Your task to perform on an android device: Show me productivity apps on the Play Store Image 0: 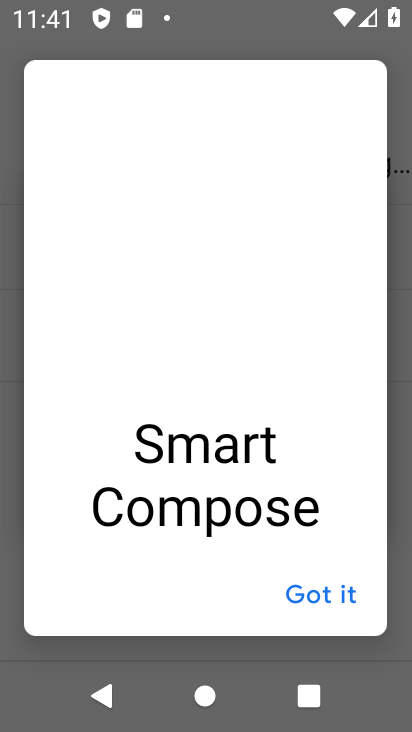
Step 0: press home button
Your task to perform on an android device: Show me productivity apps on the Play Store Image 1: 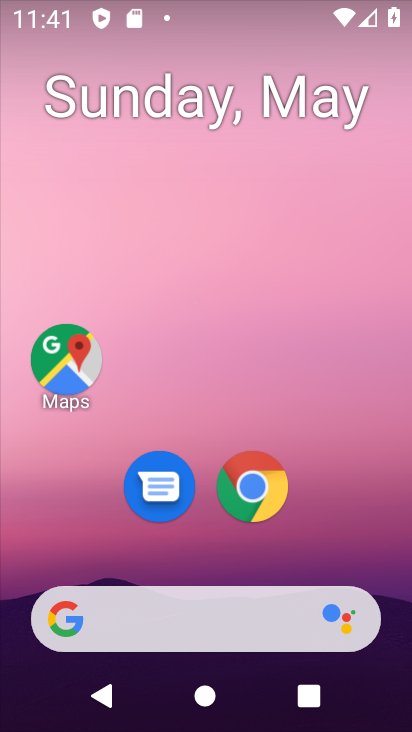
Step 1: drag from (351, 545) to (341, 258)
Your task to perform on an android device: Show me productivity apps on the Play Store Image 2: 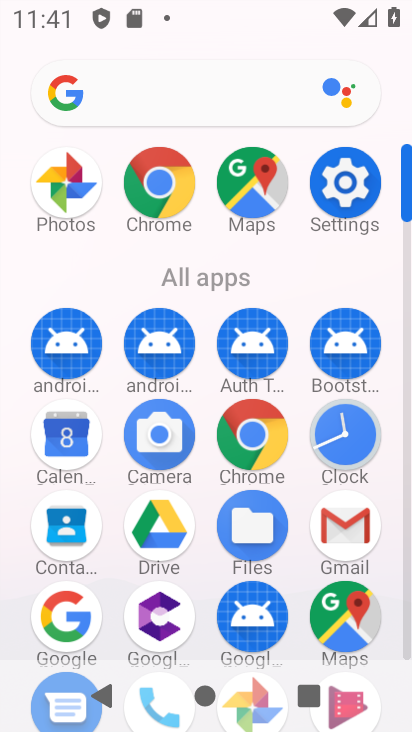
Step 2: click (408, 656)
Your task to perform on an android device: Show me productivity apps on the Play Store Image 3: 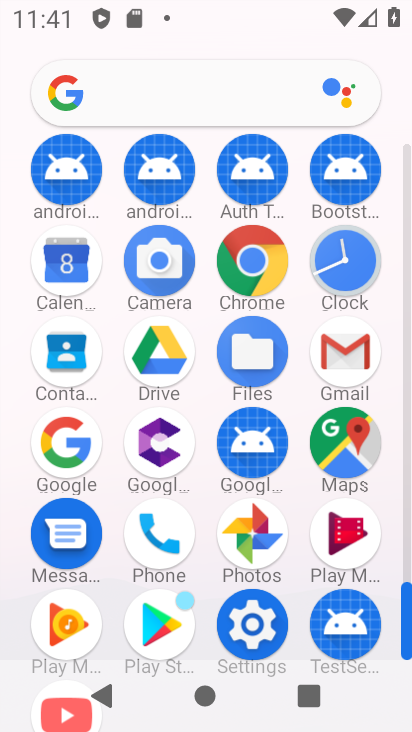
Step 3: click (164, 637)
Your task to perform on an android device: Show me productivity apps on the Play Store Image 4: 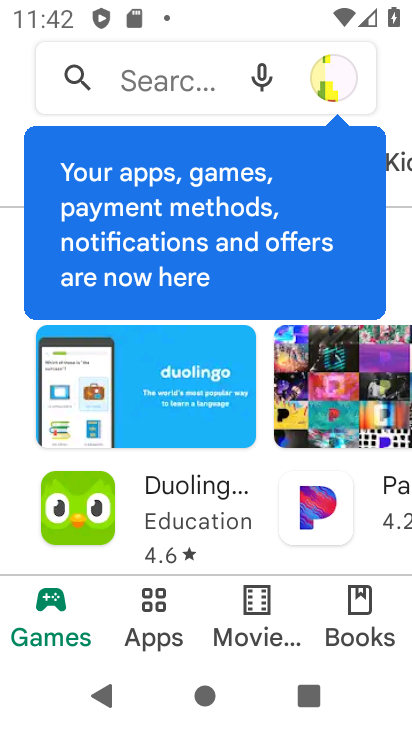
Step 4: click (164, 637)
Your task to perform on an android device: Show me productivity apps on the Play Store Image 5: 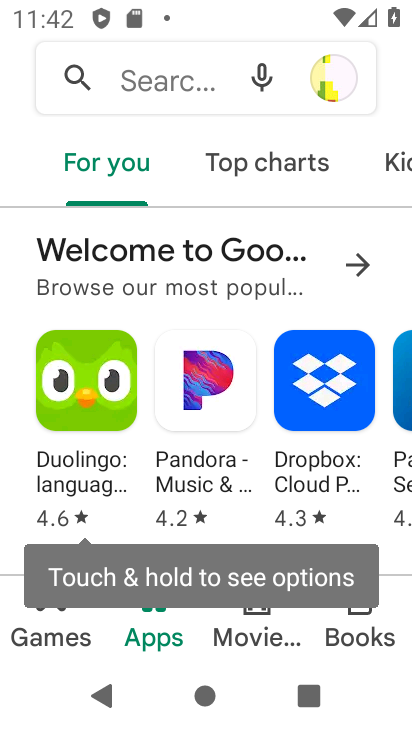
Step 5: drag from (377, 171) to (85, 173)
Your task to perform on an android device: Show me productivity apps on the Play Store Image 6: 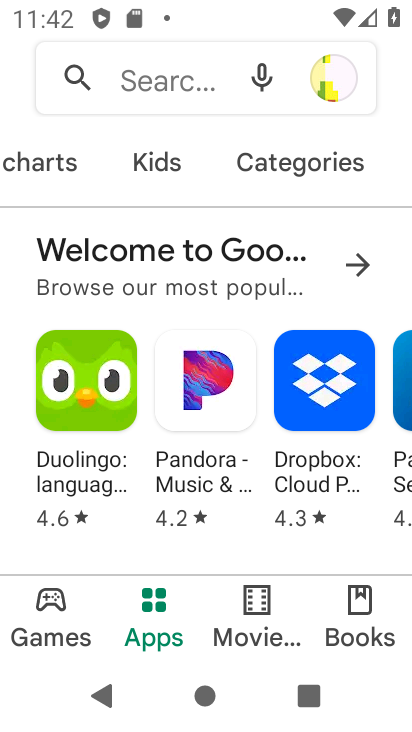
Step 6: click (262, 170)
Your task to perform on an android device: Show me productivity apps on the Play Store Image 7: 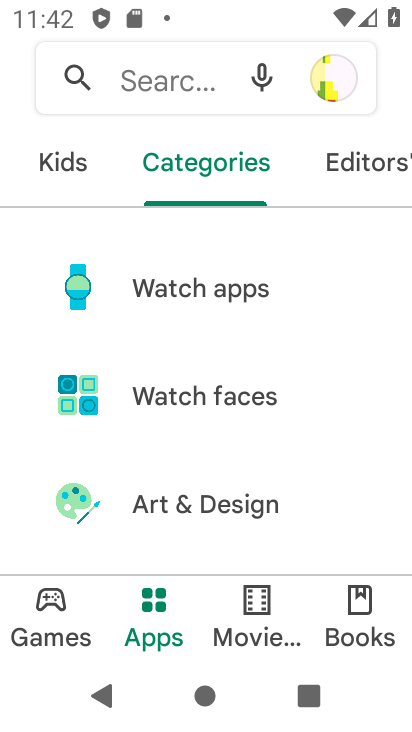
Step 7: drag from (247, 552) to (158, 39)
Your task to perform on an android device: Show me productivity apps on the Play Store Image 8: 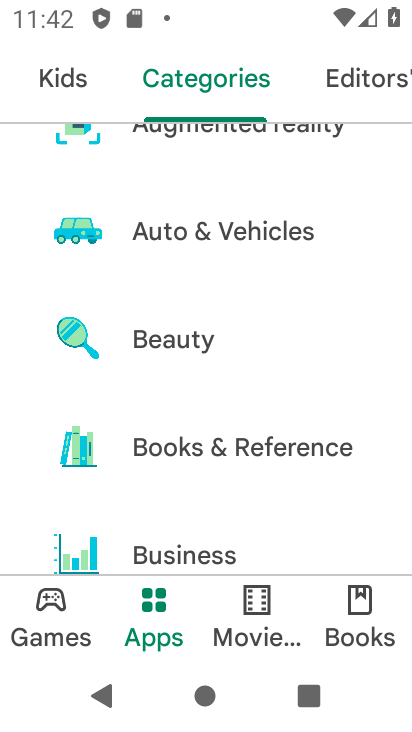
Step 8: drag from (290, 529) to (242, 218)
Your task to perform on an android device: Show me productivity apps on the Play Store Image 9: 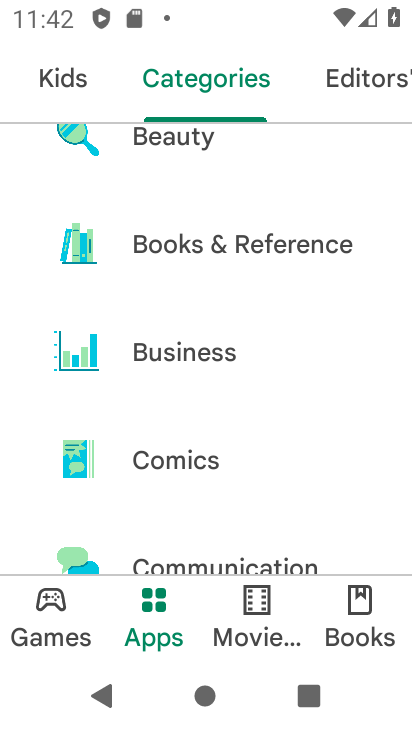
Step 9: drag from (277, 518) to (277, 116)
Your task to perform on an android device: Show me productivity apps on the Play Store Image 10: 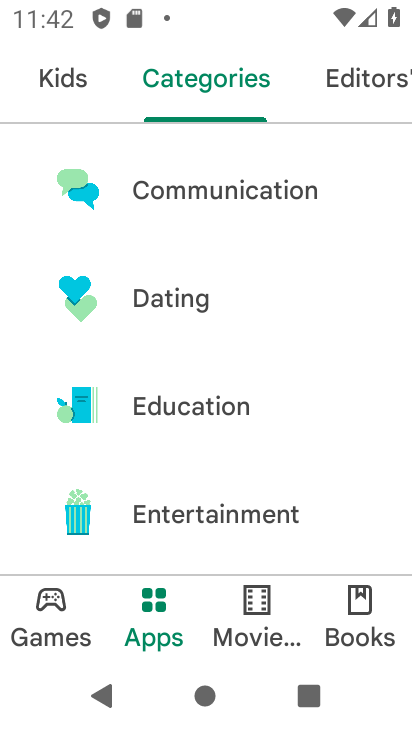
Step 10: drag from (324, 510) to (286, 176)
Your task to perform on an android device: Show me productivity apps on the Play Store Image 11: 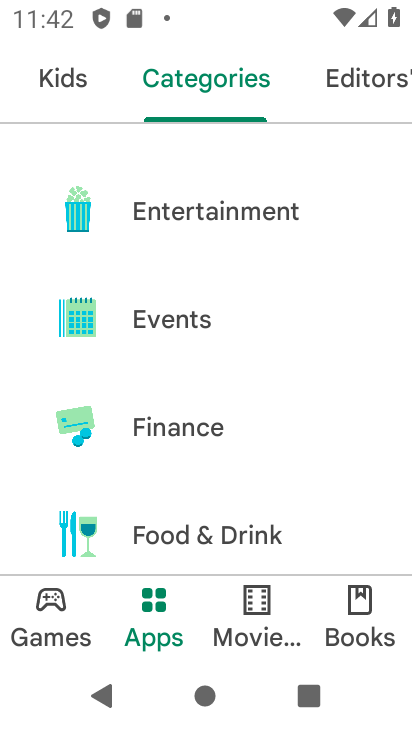
Step 11: drag from (289, 526) to (228, 159)
Your task to perform on an android device: Show me productivity apps on the Play Store Image 12: 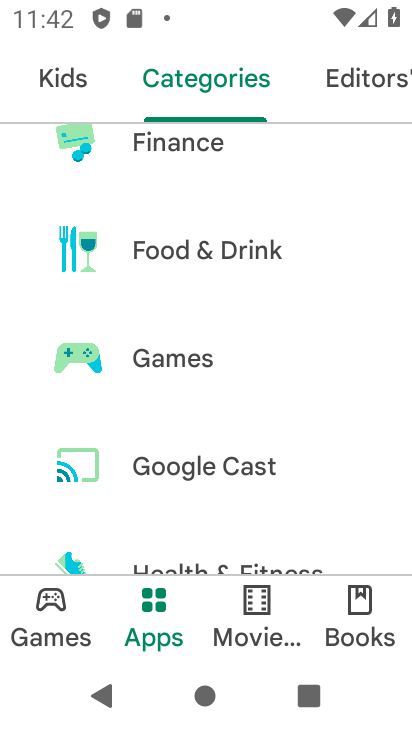
Step 12: drag from (280, 532) to (199, 124)
Your task to perform on an android device: Show me productivity apps on the Play Store Image 13: 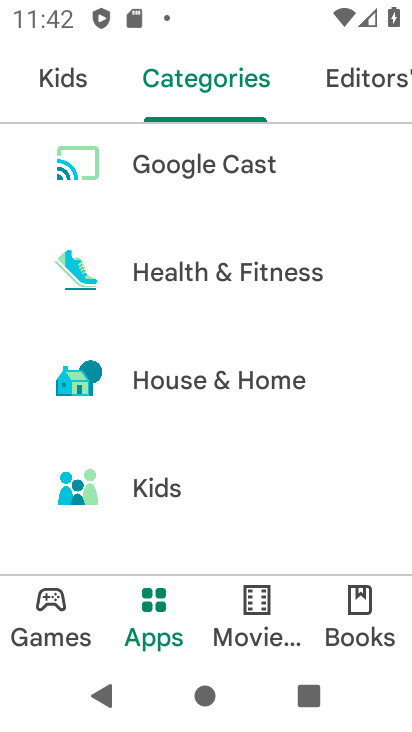
Step 13: drag from (262, 526) to (206, 157)
Your task to perform on an android device: Show me productivity apps on the Play Store Image 14: 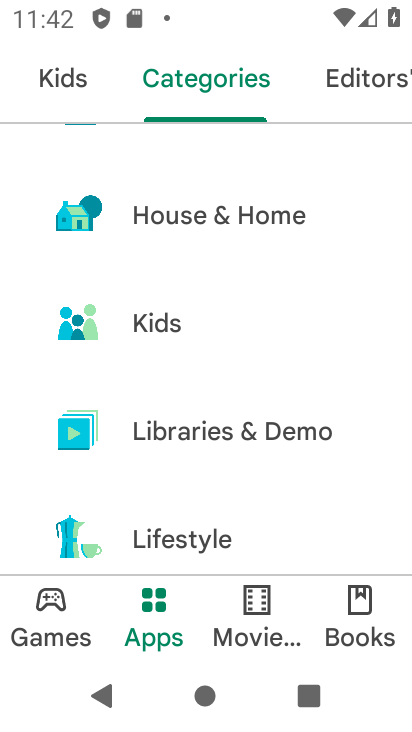
Step 14: drag from (297, 509) to (210, 23)
Your task to perform on an android device: Show me productivity apps on the Play Store Image 15: 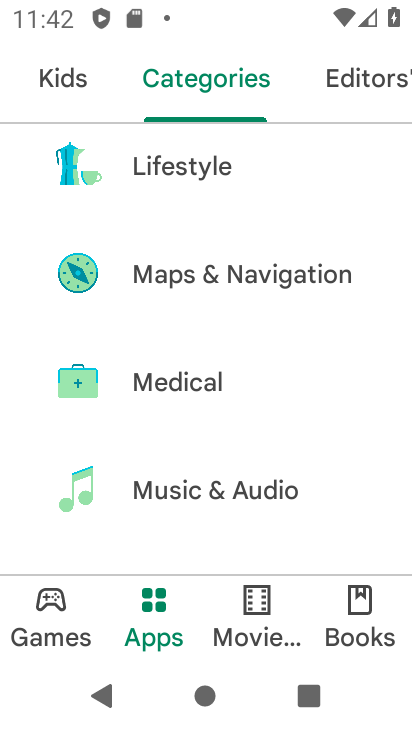
Step 15: drag from (253, 438) to (229, 69)
Your task to perform on an android device: Show me productivity apps on the Play Store Image 16: 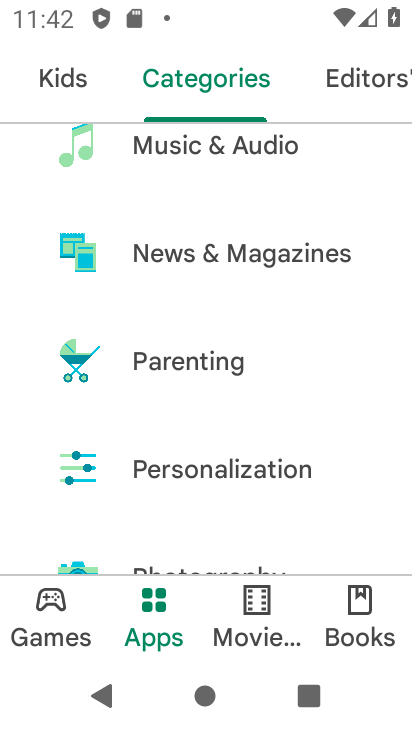
Step 16: drag from (236, 518) to (217, 301)
Your task to perform on an android device: Show me productivity apps on the Play Store Image 17: 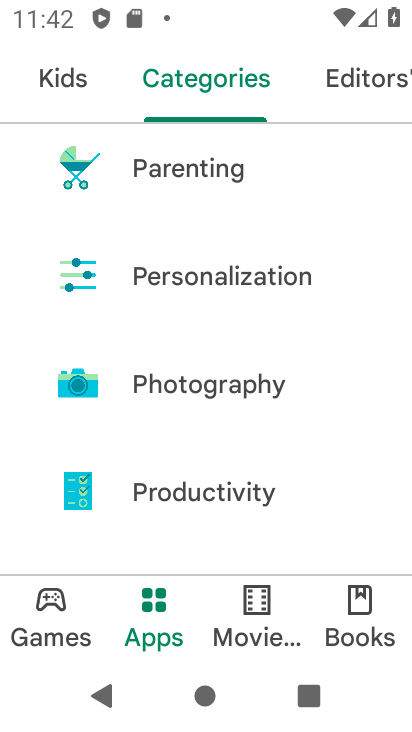
Step 17: click (240, 508)
Your task to perform on an android device: Show me productivity apps on the Play Store Image 18: 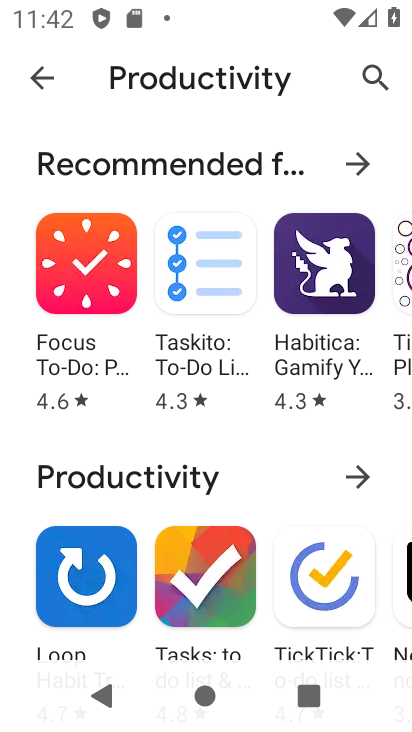
Step 18: task complete